Your task to perform on an android device: turn pop-ups off in chrome Image 0: 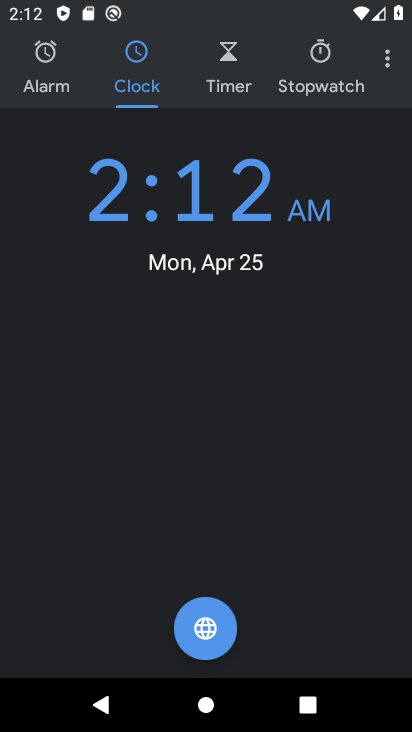
Step 0: drag from (315, 595) to (316, 263)
Your task to perform on an android device: turn pop-ups off in chrome Image 1: 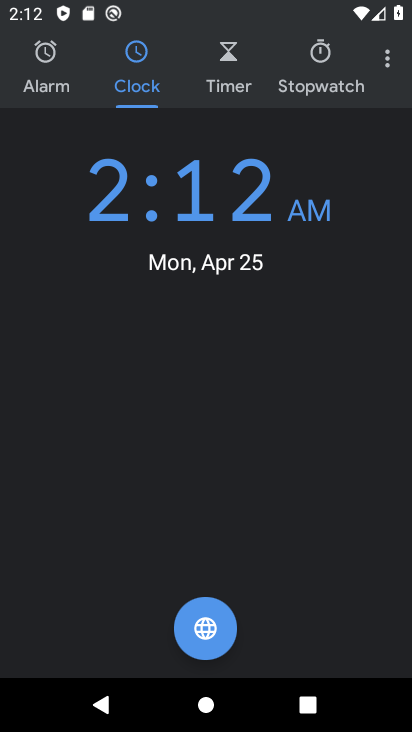
Step 1: drag from (312, 447) to (318, 290)
Your task to perform on an android device: turn pop-ups off in chrome Image 2: 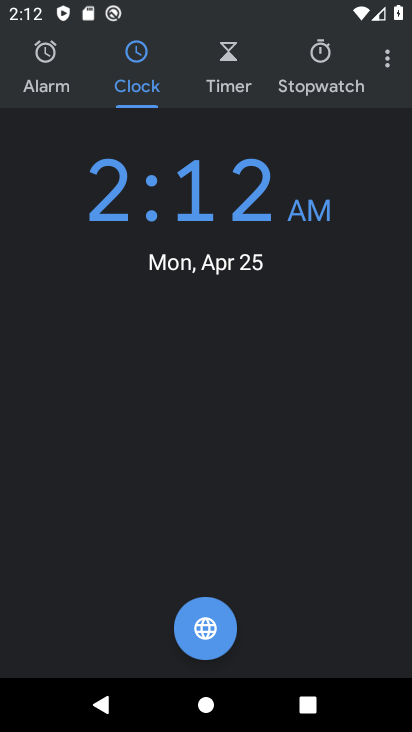
Step 2: press home button
Your task to perform on an android device: turn pop-ups off in chrome Image 3: 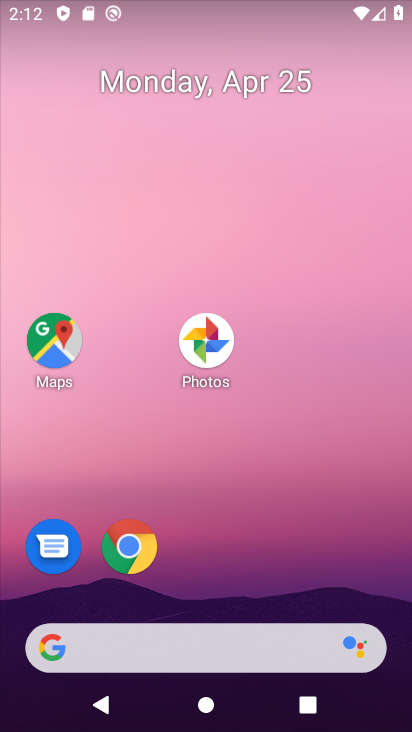
Step 3: drag from (234, 593) to (315, 185)
Your task to perform on an android device: turn pop-ups off in chrome Image 4: 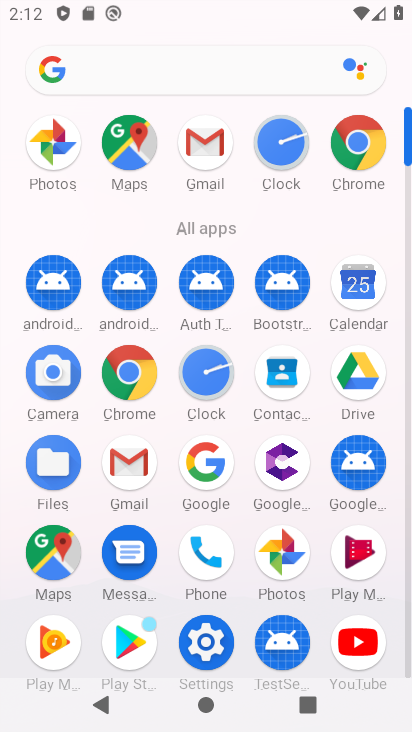
Step 4: click (126, 370)
Your task to perform on an android device: turn pop-ups off in chrome Image 5: 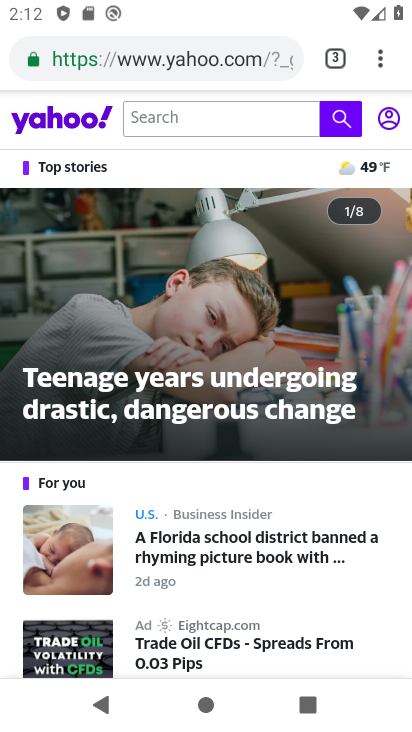
Step 5: click (374, 63)
Your task to perform on an android device: turn pop-ups off in chrome Image 6: 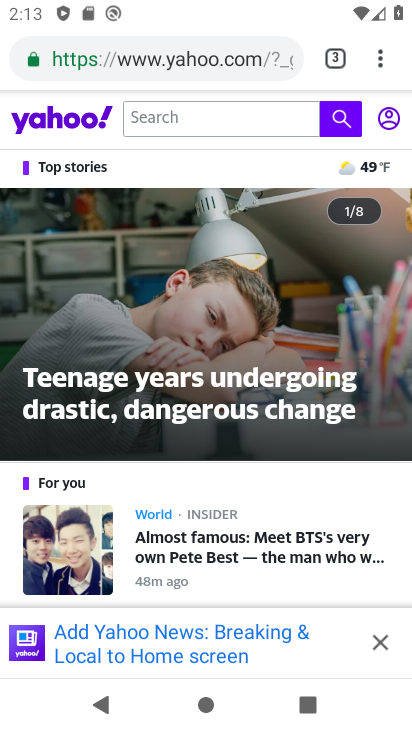
Step 6: click (364, 48)
Your task to perform on an android device: turn pop-ups off in chrome Image 7: 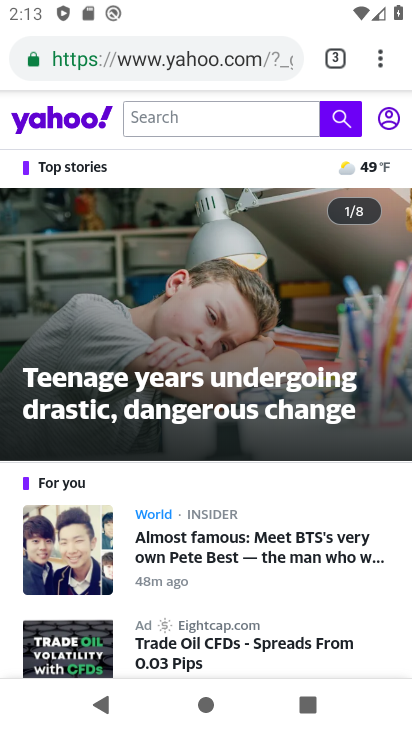
Step 7: click (369, 57)
Your task to perform on an android device: turn pop-ups off in chrome Image 8: 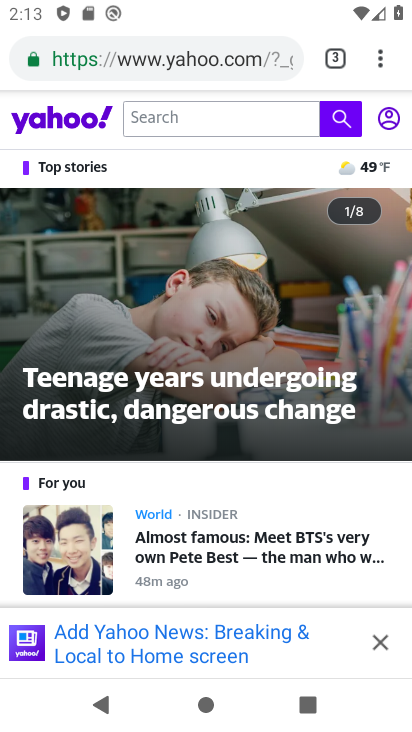
Step 8: click (382, 49)
Your task to perform on an android device: turn pop-ups off in chrome Image 9: 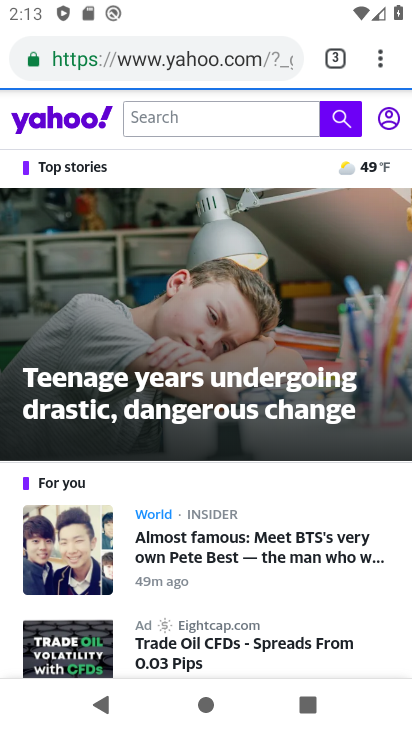
Step 9: click (359, 61)
Your task to perform on an android device: turn pop-ups off in chrome Image 10: 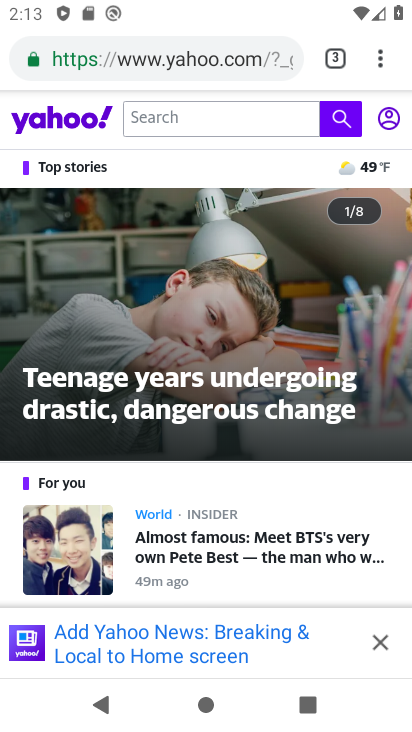
Step 10: click (359, 61)
Your task to perform on an android device: turn pop-ups off in chrome Image 11: 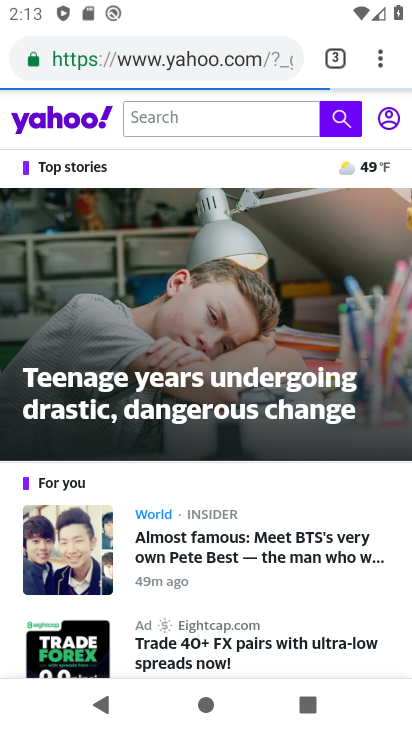
Step 11: click (345, 56)
Your task to perform on an android device: turn pop-ups off in chrome Image 12: 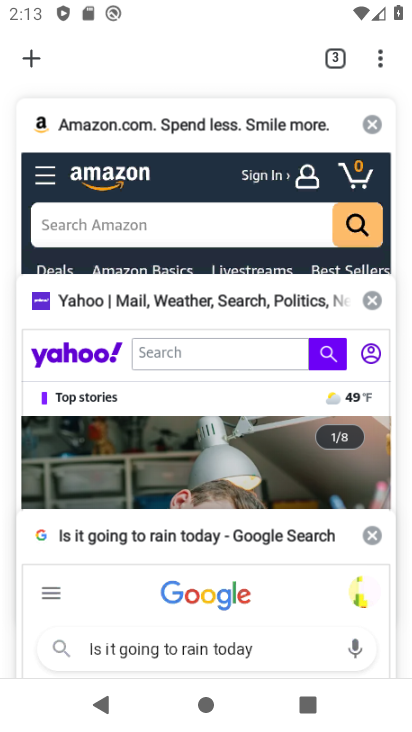
Step 12: click (381, 57)
Your task to perform on an android device: turn pop-ups off in chrome Image 13: 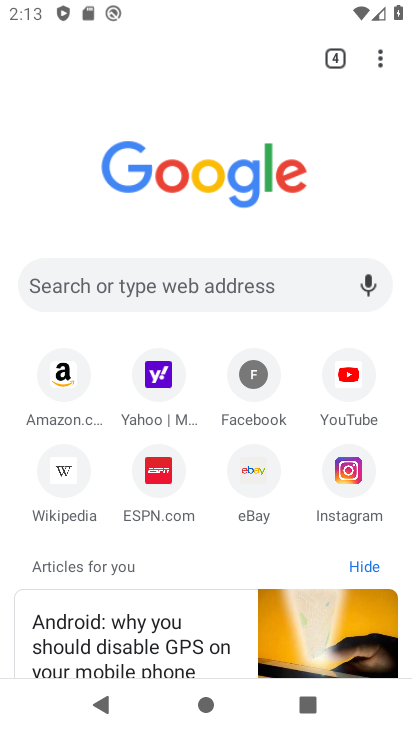
Step 13: click (371, 55)
Your task to perform on an android device: turn pop-ups off in chrome Image 14: 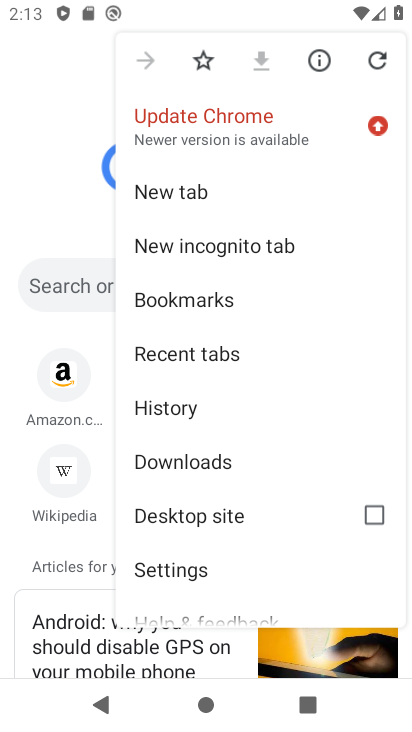
Step 14: click (208, 568)
Your task to perform on an android device: turn pop-ups off in chrome Image 15: 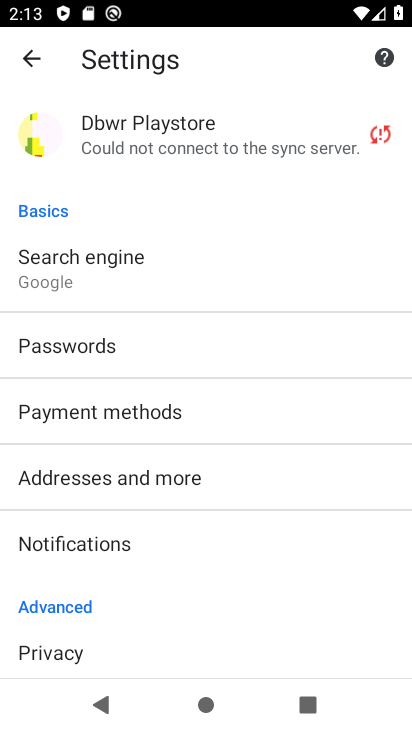
Step 15: drag from (224, 603) to (290, 160)
Your task to perform on an android device: turn pop-ups off in chrome Image 16: 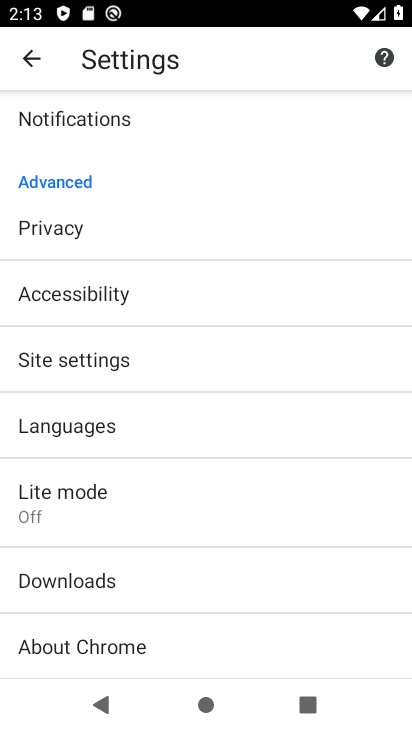
Step 16: click (221, 365)
Your task to perform on an android device: turn pop-ups off in chrome Image 17: 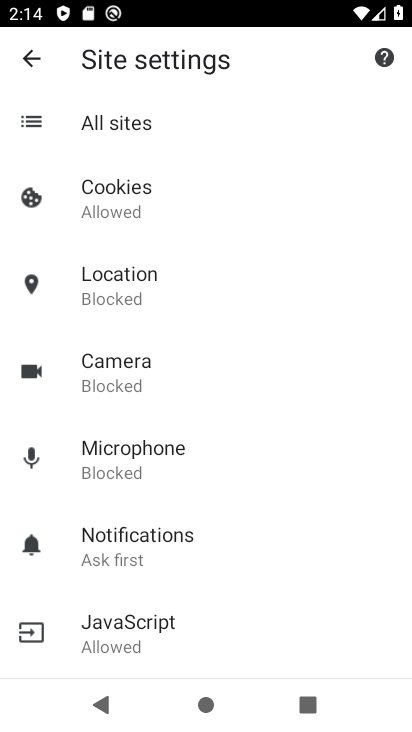
Step 17: drag from (249, 600) to (311, 162)
Your task to perform on an android device: turn pop-ups off in chrome Image 18: 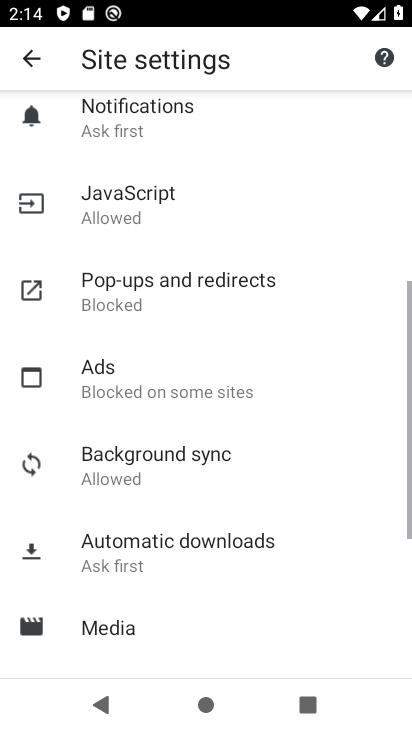
Step 18: click (231, 277)
Your task to perform on an android device: turn pop-ups off in chrome Image 19: 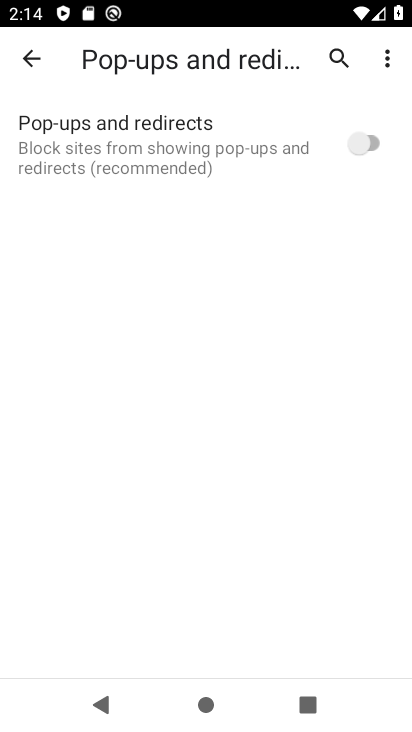
Step 19: task complete